Your task to perform on an android device: Open Google Maps and go to "Timeline" Image 0: 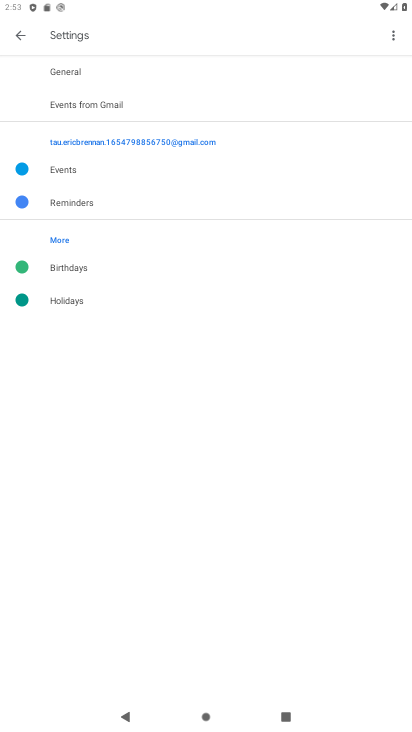
Step 0: press home button
Your task to perform on an android device: Open Google Maps and go to "Timeline" Image 1: 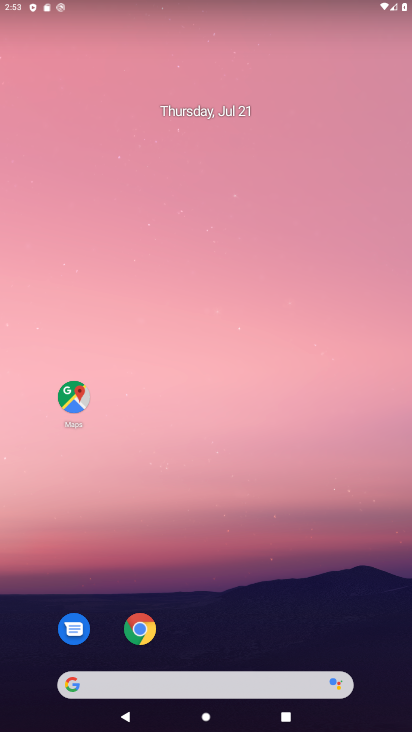
Step 1: click (67, 410)
Your task to perform on an android device: Open Google Maps and go to "Timeline" Image 2: 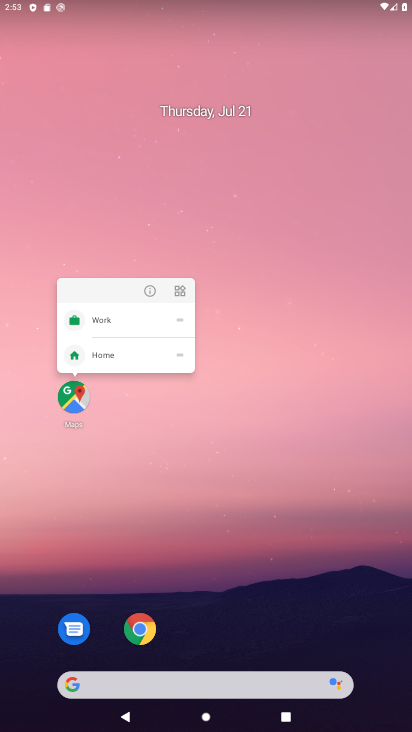
Step 2: click (79, 403)
Your task to perform on an android device: Open Google Maps and go to "Timeline" Image 3: 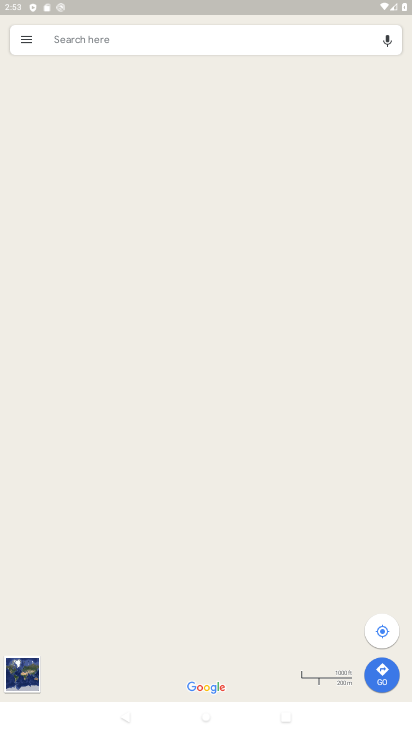
Step 3: click (31, 35)
Your task to perform on an android device: Open Google Maps and go to "Timeline" Image 4: 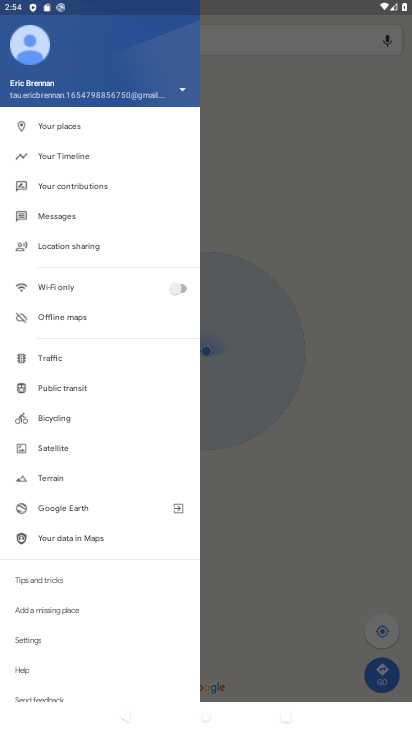
Step 4: click (74, 159)
Your task to perform on an android device: Open Google Maps and go to "Timeline" Image 5: 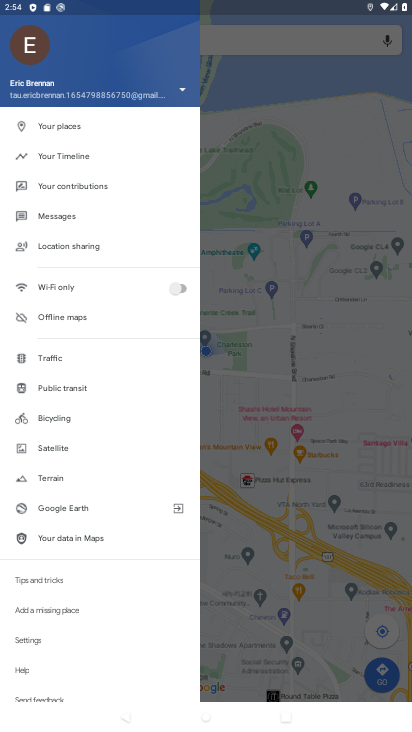
Step 5: task complete